Your task to perform on an android device: Is it going to rain tomorrow? Image 0: 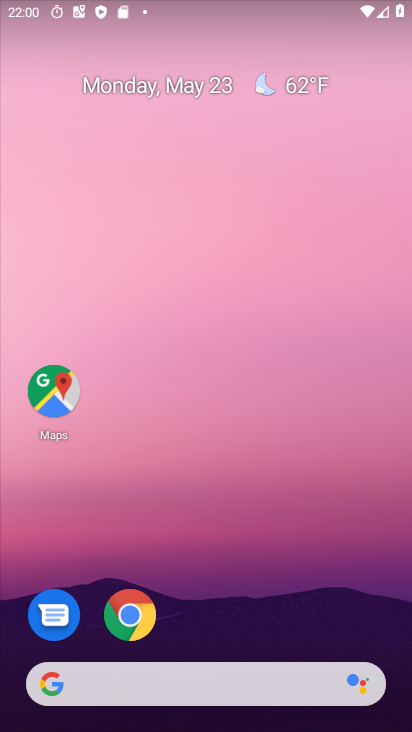
Step 0: drag from (224, 584) to (325, 6)
Your task to perform on an android device: Is it going to rain tomorrow? Image 1: 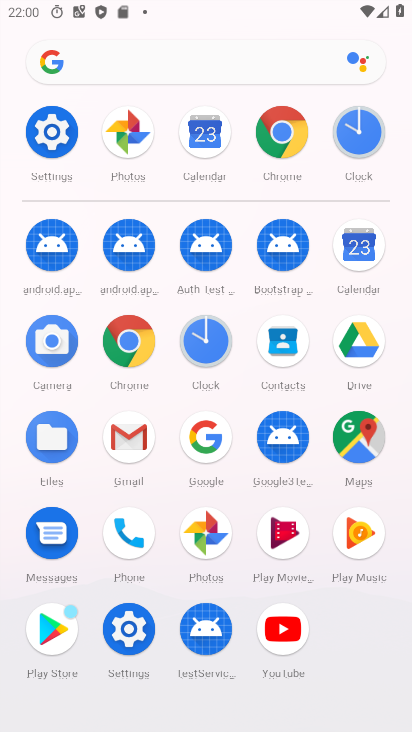
Step 1: click (203, 447)
Your task to perform on an android device: Is it going to rain tomorrow? Image 2: 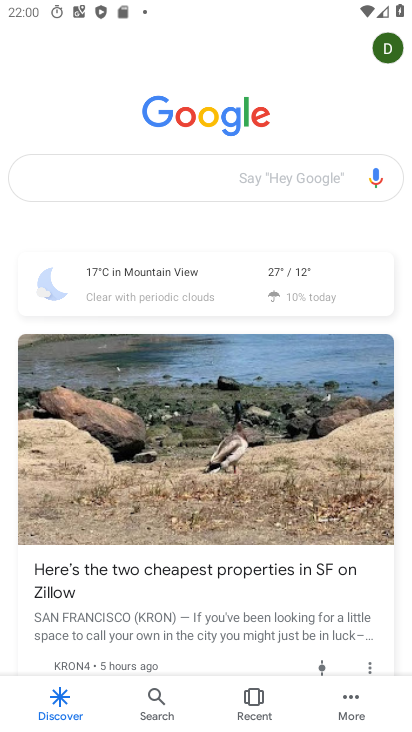
Step 2: click (193, 183)
Your task to perform on an android device: Is it going to rain tomorrow? Image 3: 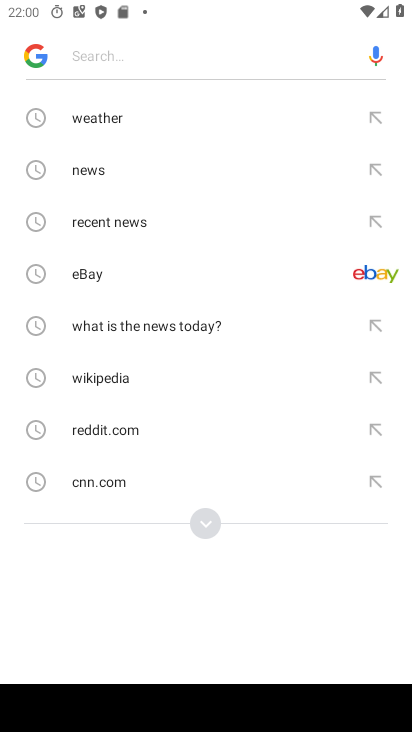
Step 3: type "is it going to rain tomorrow"
Your task to perform on an android device: Is it going to rain tomorrow? Image 4: 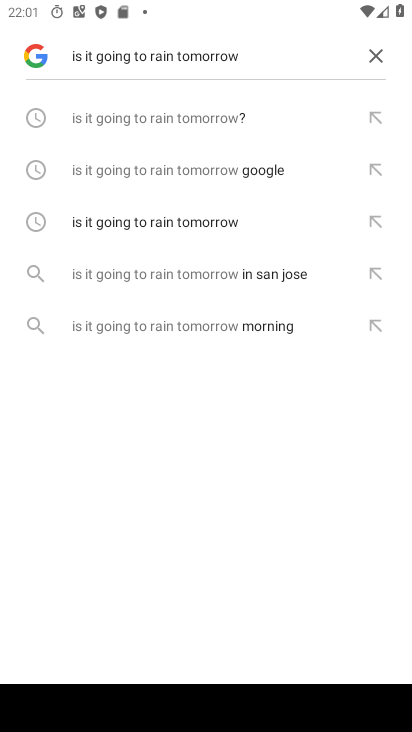
Step 4: click (223, 120)
Your task to perform on an android device: Is it going to rain tomorrow? Image 5: 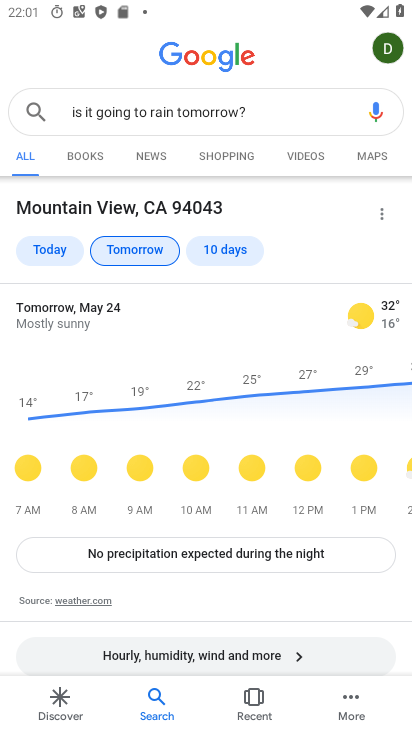
Step 5: task complete